Your task to perform on an android device: turn vacation reply on in the gmail app Image 0: 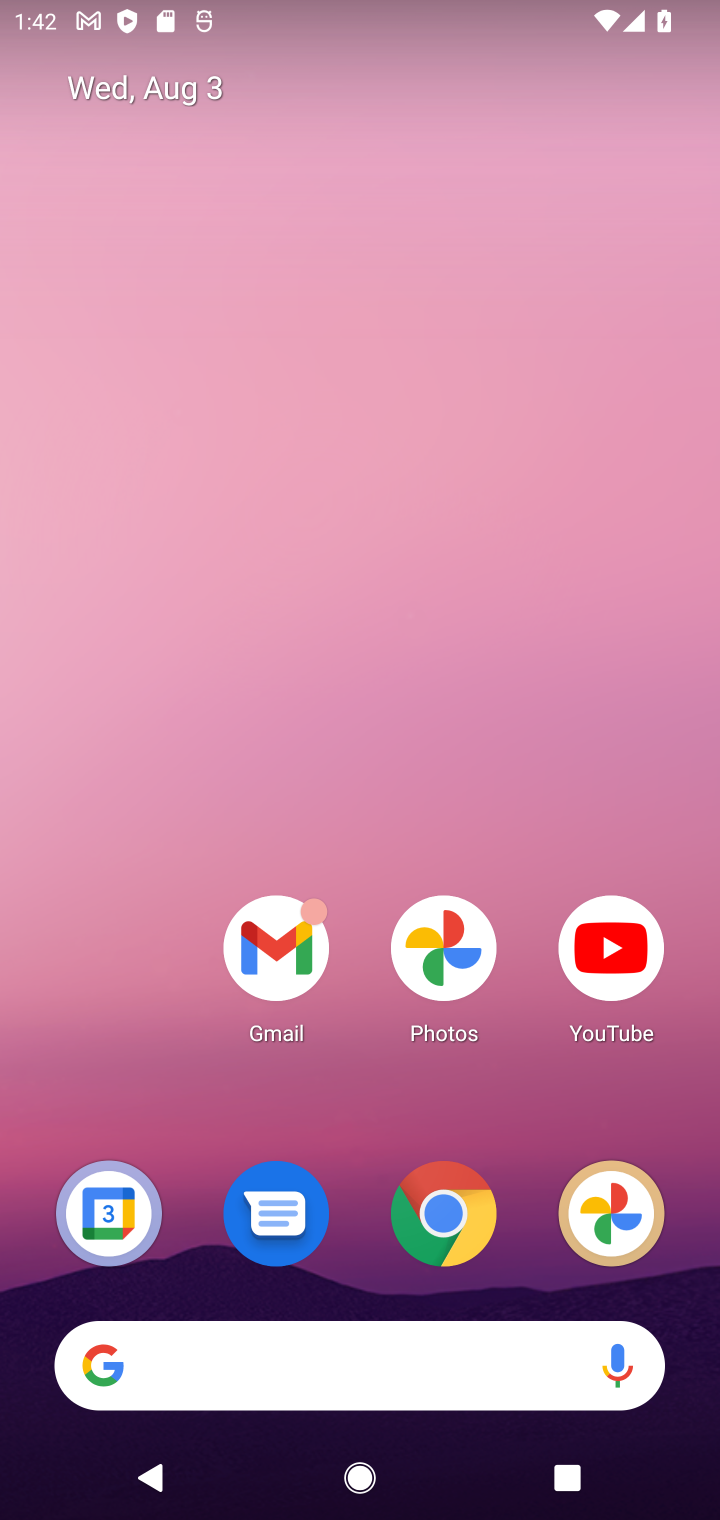
Step 0: drag from (369, 1200) to (556, 22)
Your task to perform on an android device: turn vacation reply on in the gmail app Image 1: 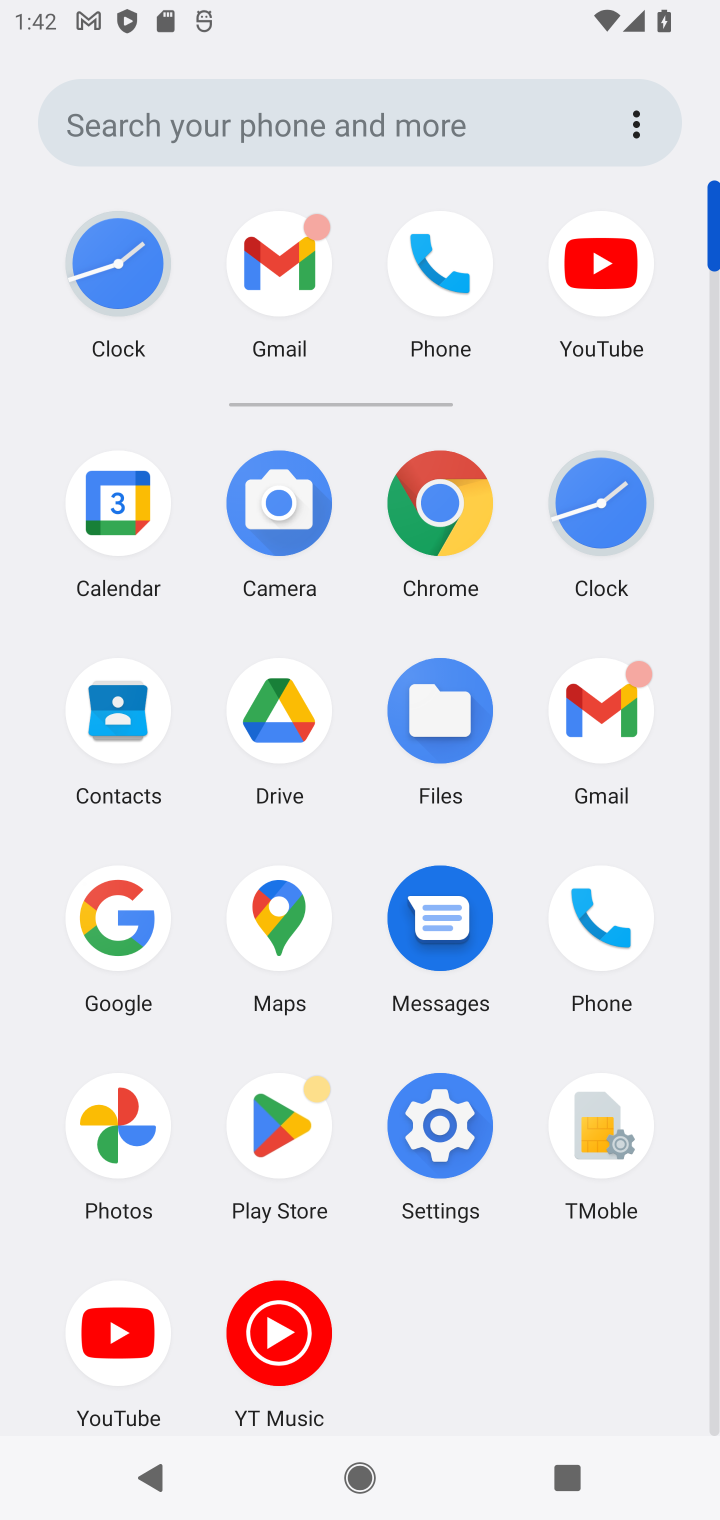
Step 1: click (580, 708)
Your task to perform on an android device: turn vacation reply on in the gmail app Image 2: 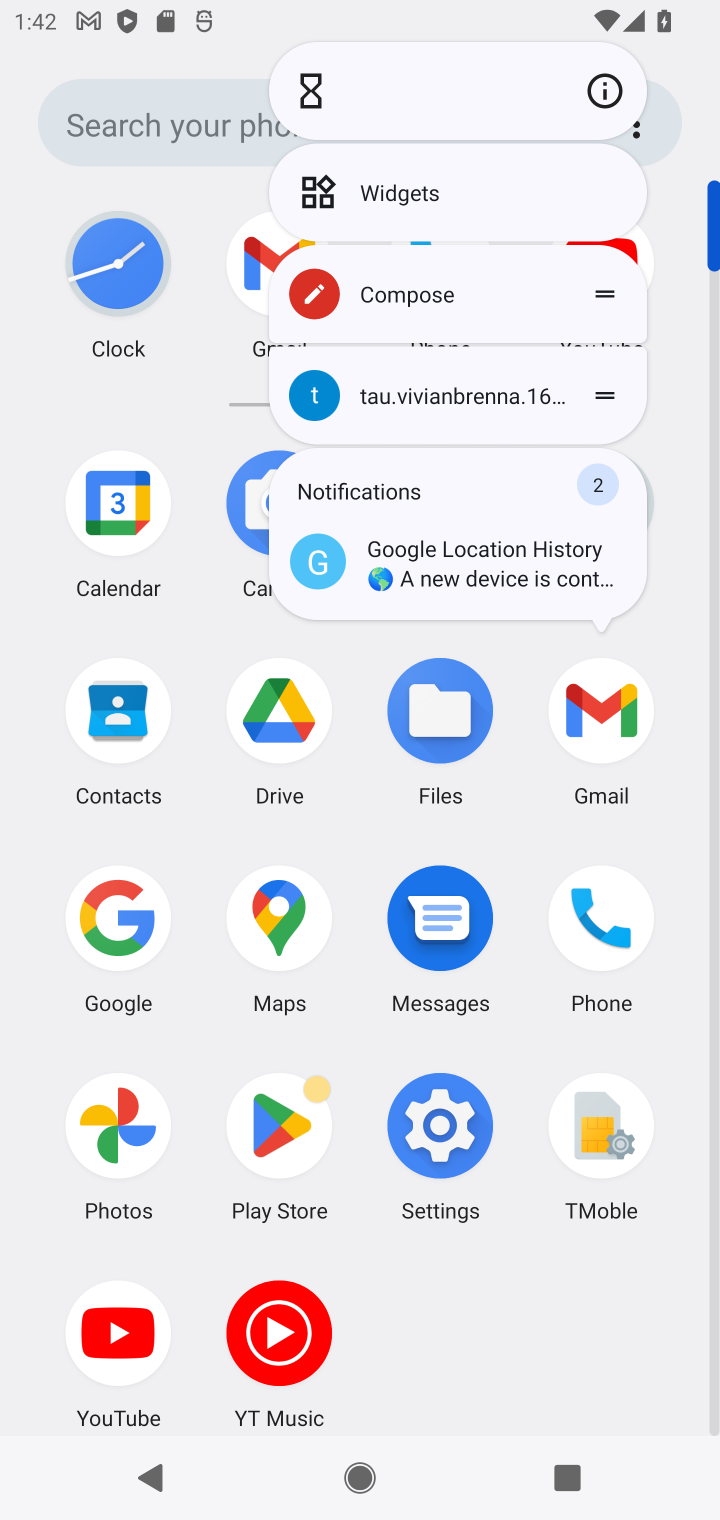
Step 2: click (619, 721)
Your task to perform on an android device: turn vacation reply on in the gmail app Image 3: 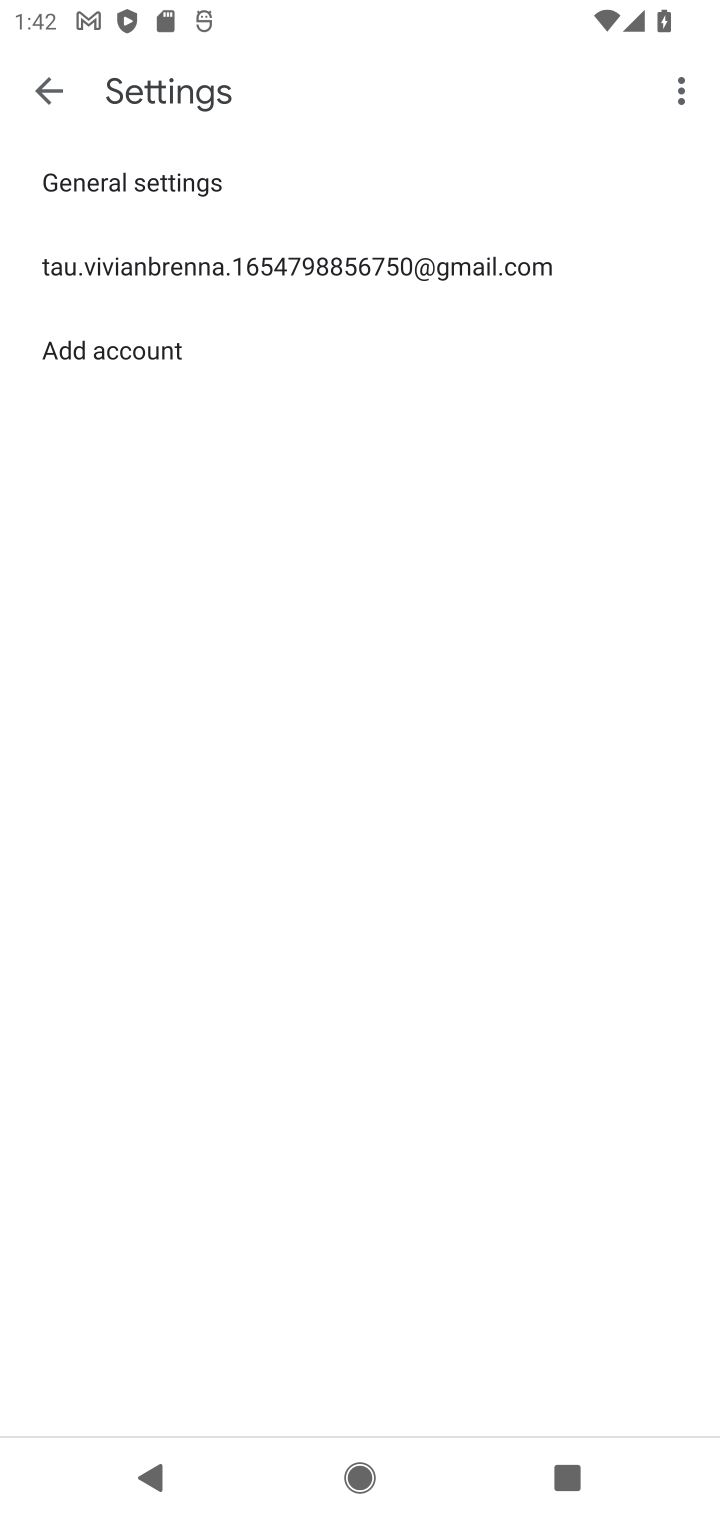
Step 3: press back button
Your task to perform on an android device: turn vacation reply on in the gmail app Image 4: 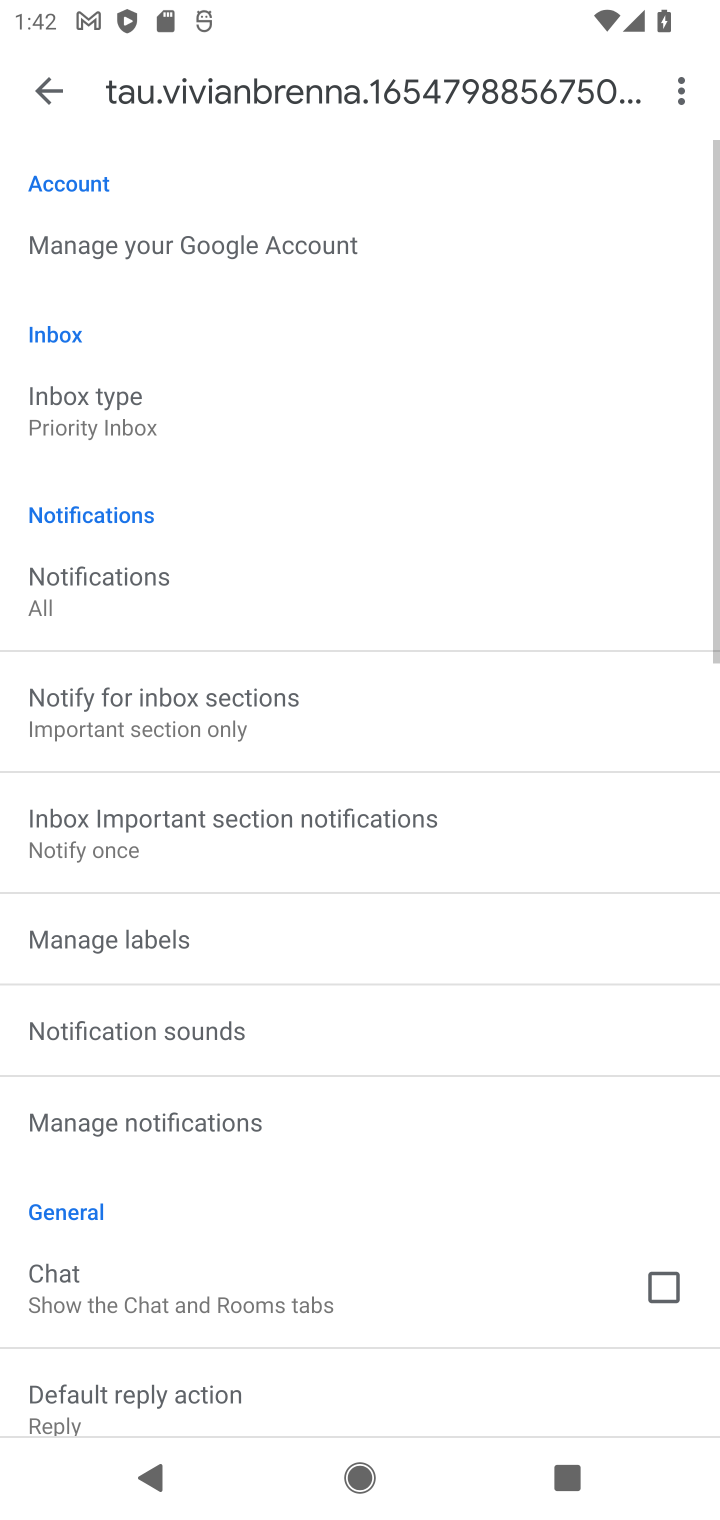
Step 4: press back button
Your task to perform on an android device: turn vacation reply on in the gmail app Image 5: 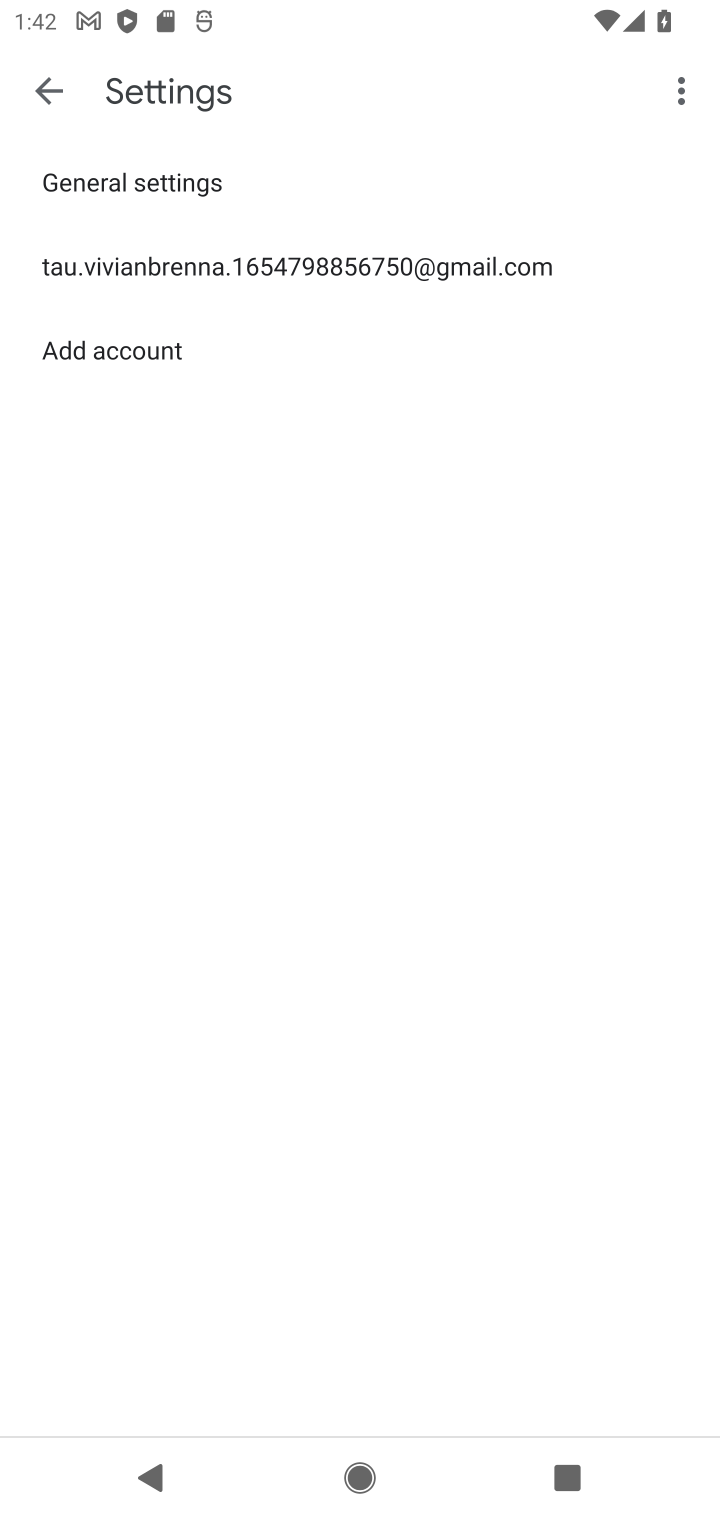
Step 5: click (346, 270)
Your task to perform on an android device: turn vacation reply on in the gmail app Image 6: 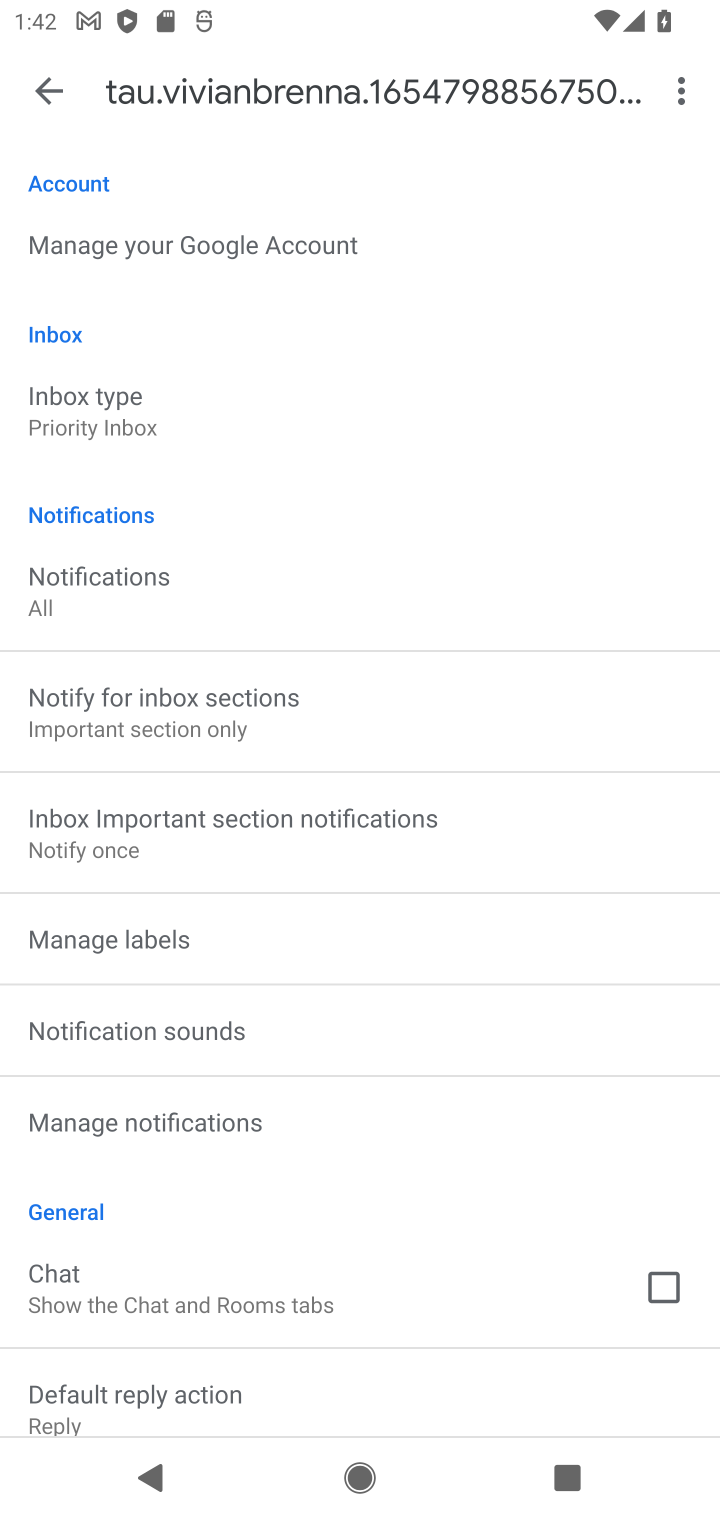
Step 6: drag from (287, 1101) to (320, 399)
Your task to perform on an android device: turn vacation reply on in the gmail app Image 7: 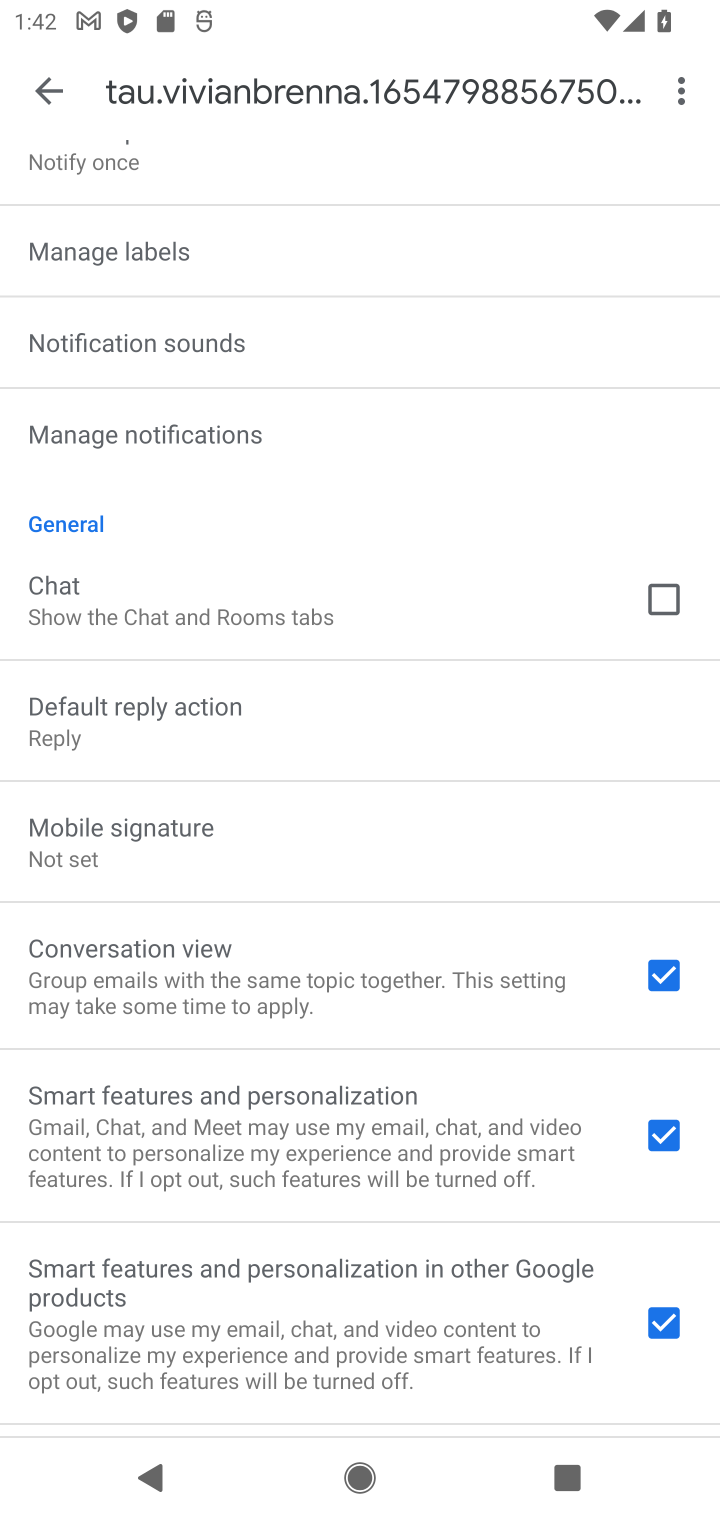
Step 7: drag from (243, 1226) to (399, 389)
Your task to perform on an android device: turn vacation reply on in the gmail app Image 8: 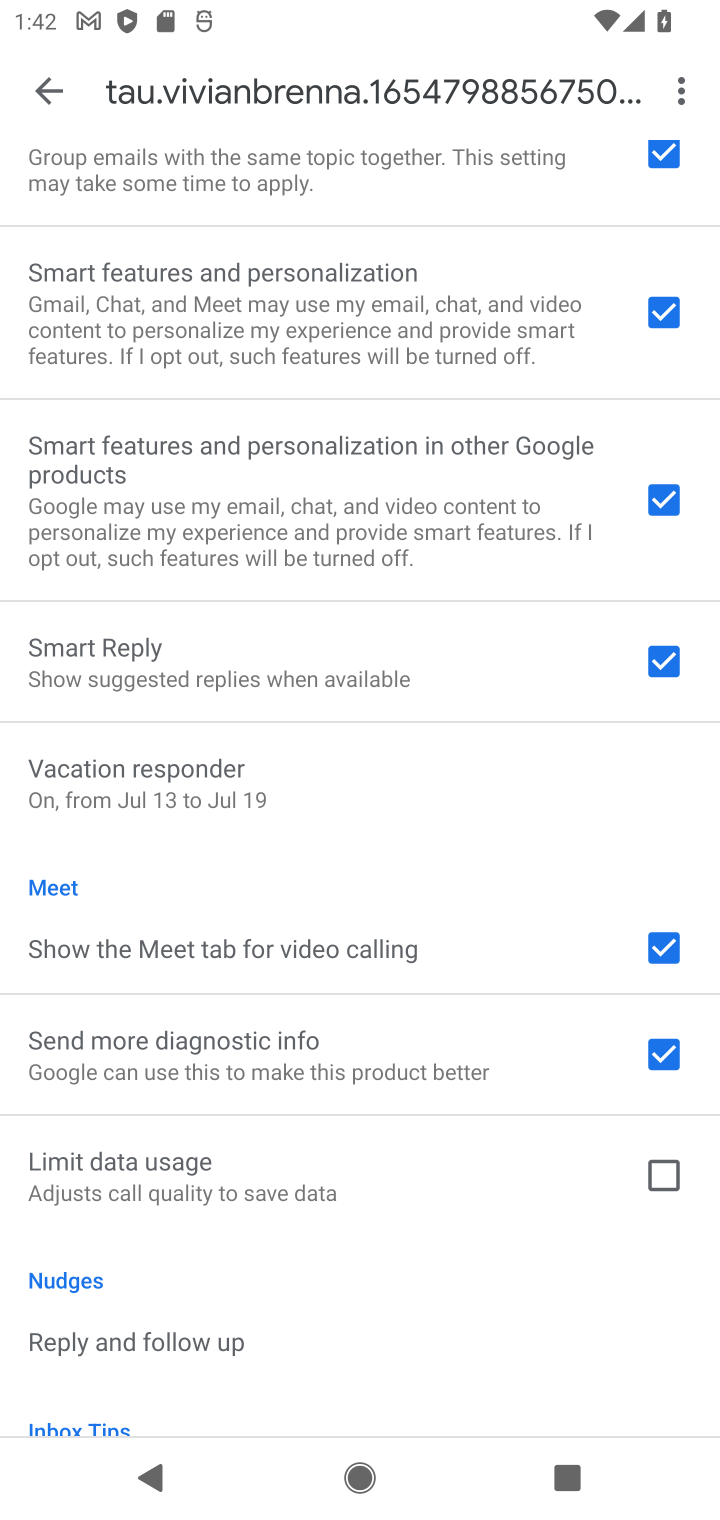
Step 8: click (321, 777)
Your task to perform on an android device: turn vacation reply on in the gmail app Image 9: 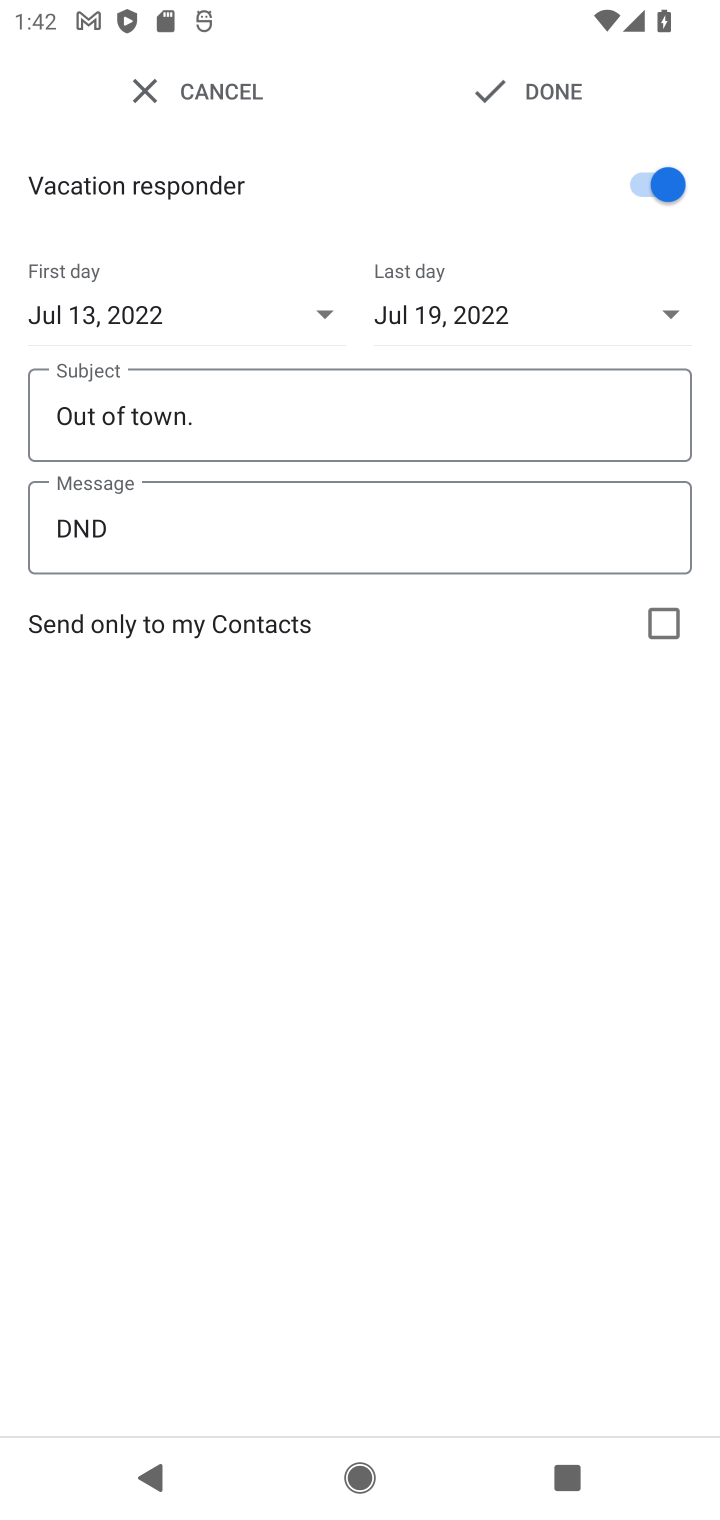
Step 9: click (546, 76)
Your task to perform on an android device: turn vacation reply on in the gmail app Image 10: 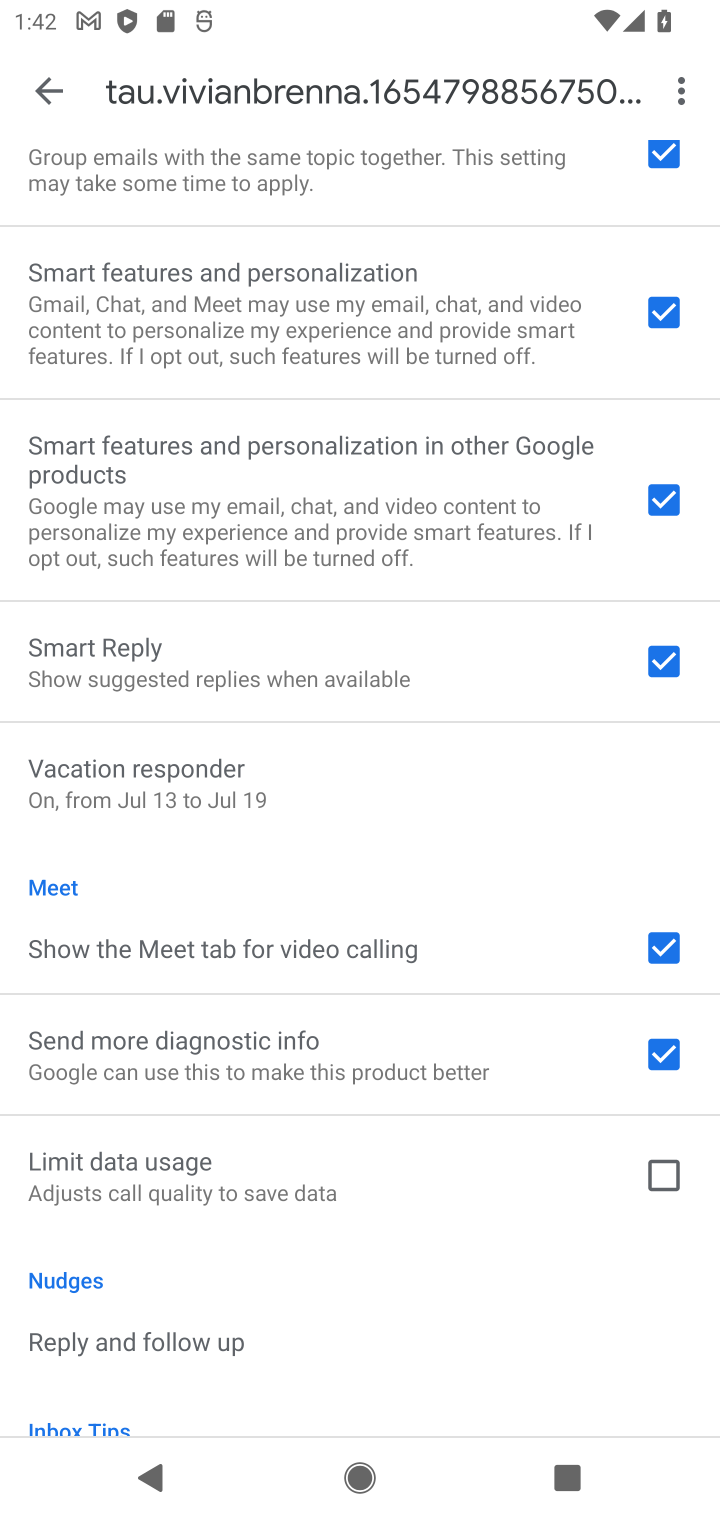
Step 10: task complete